Your task to perform on an android device: open app "Microsoft Authenticator" Image 0: 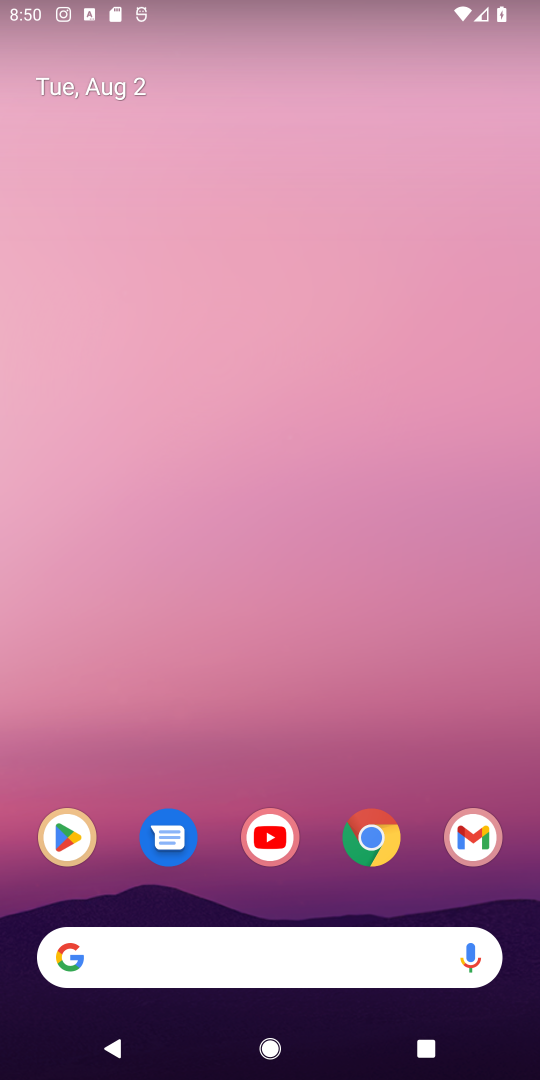
Step 0: click (78, 839)
Your task to perform on an android device: open app "Microsoft Authenticator" Image 1: 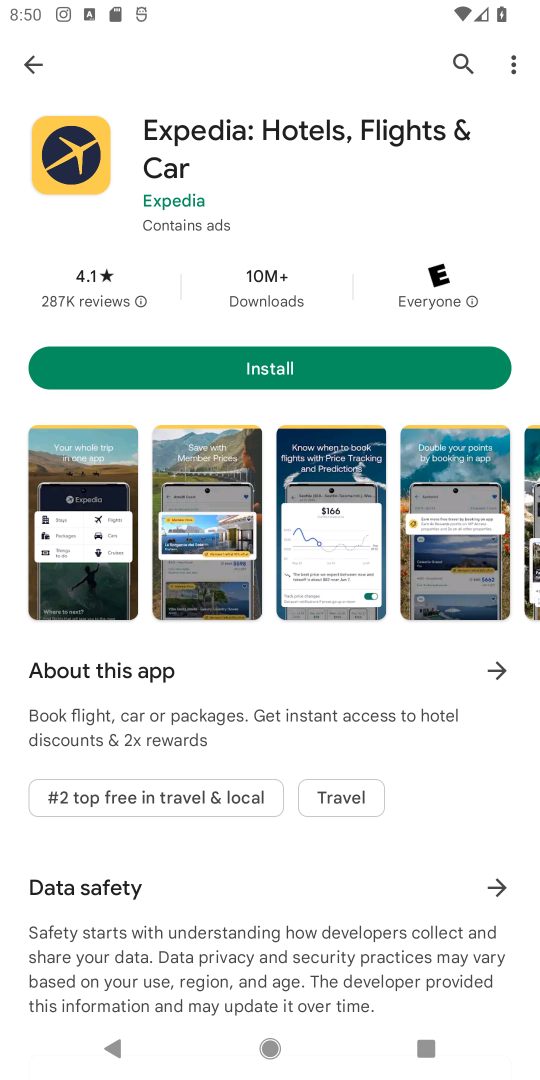
Step 1: click (467, 66)
Your task to perform on an android device: open app "Microsoft Authenticator" Image 2: 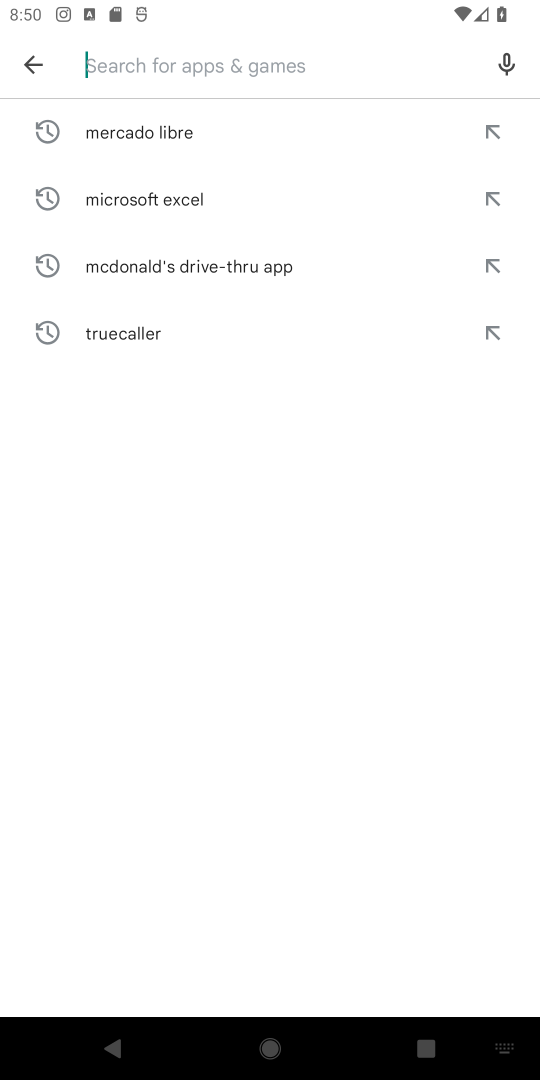
Step 2: type "Microsoft Authenticator"
Your task to perform on an android device: open app "Microsoft Authenticator" Image 3: 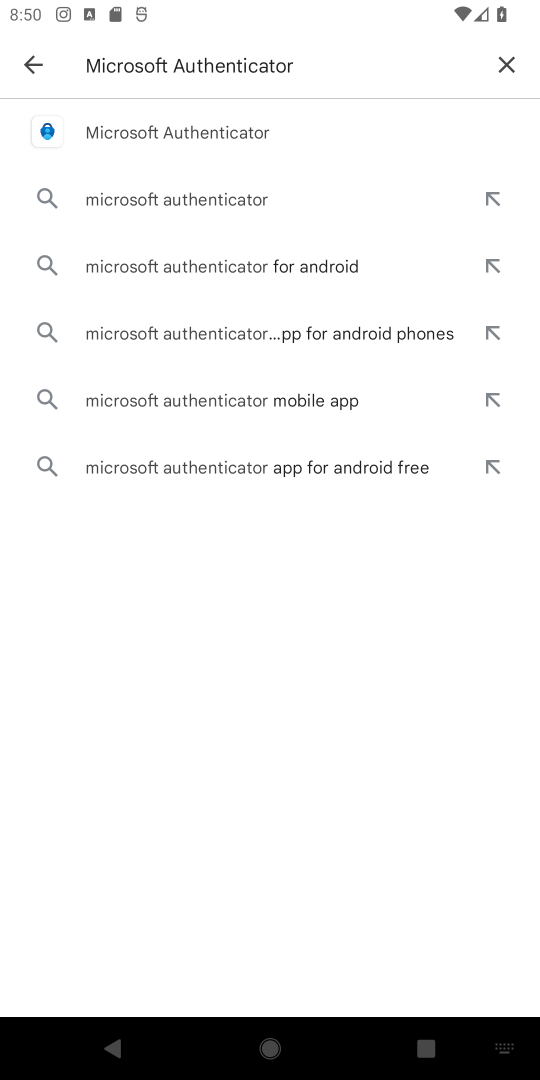
Step 3: click (163, 135)
Your task to perform on an android device: open app "Microsoft Authenticator" Image 4: 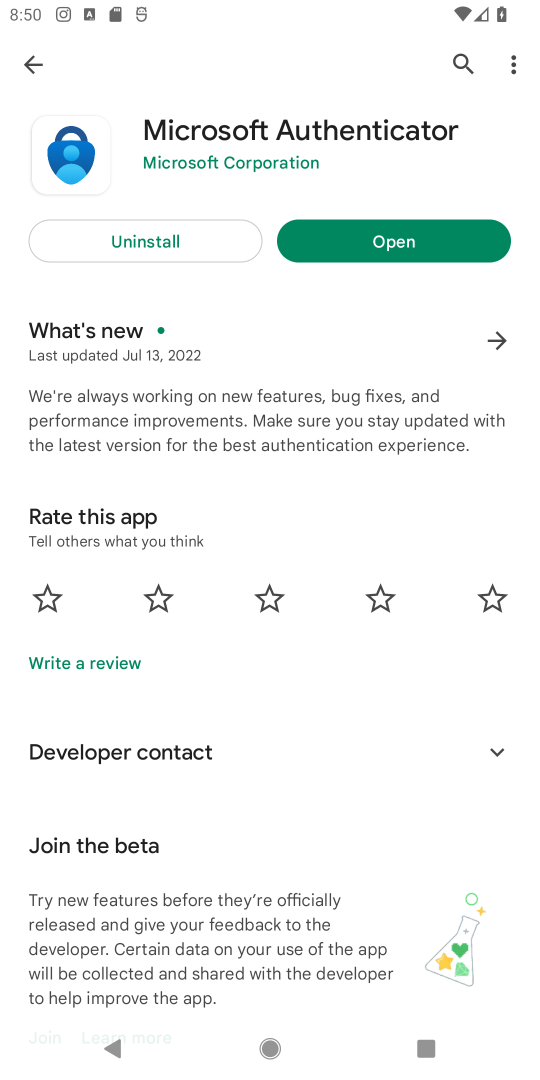
Step 4: click (367, 248)
Your task to perform on an android device: open app "Microsoft Authenticator" Image 5: 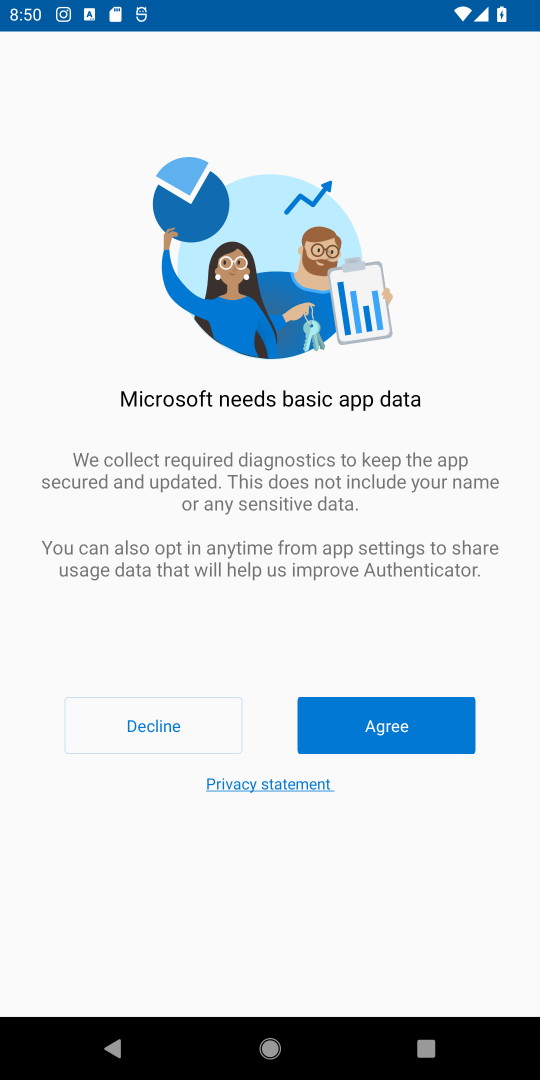
Step 5: task complete